Your task to perform on an android device: allow notifications from all sites in the chrome app Image 0: 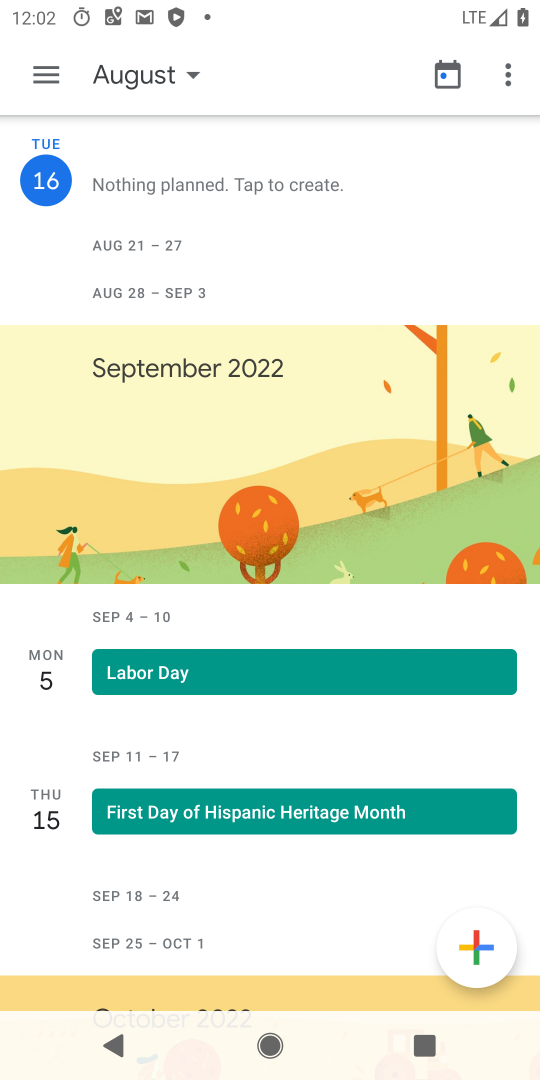
Step 0: press home button
Your task to perform on an android device: allow notifications from all sites in the chrome app Image 1: 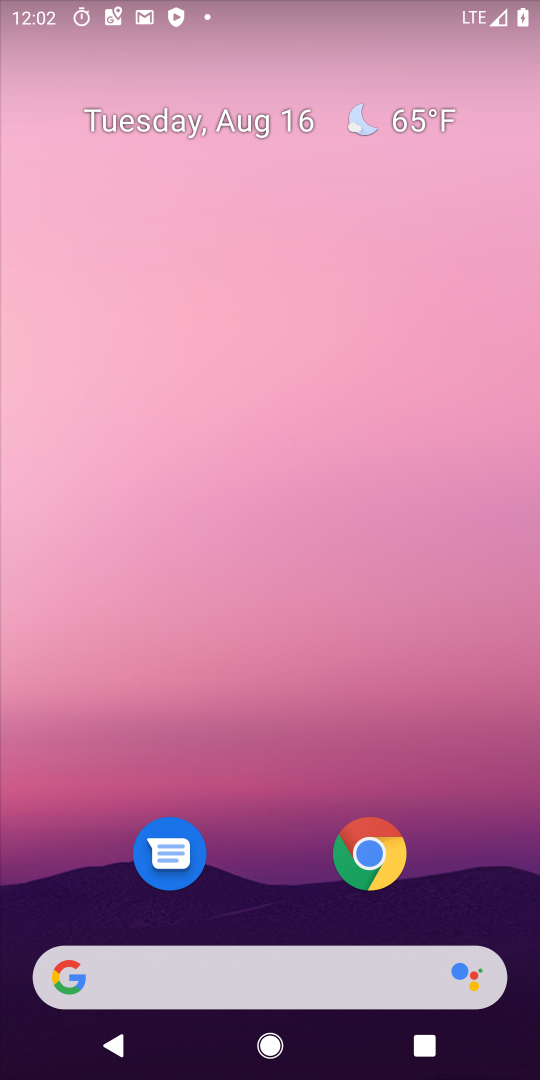
Step 1: click (361, 878)
Your task to perform on an android device: allow notifications from all sites in the chrome app Image 2: 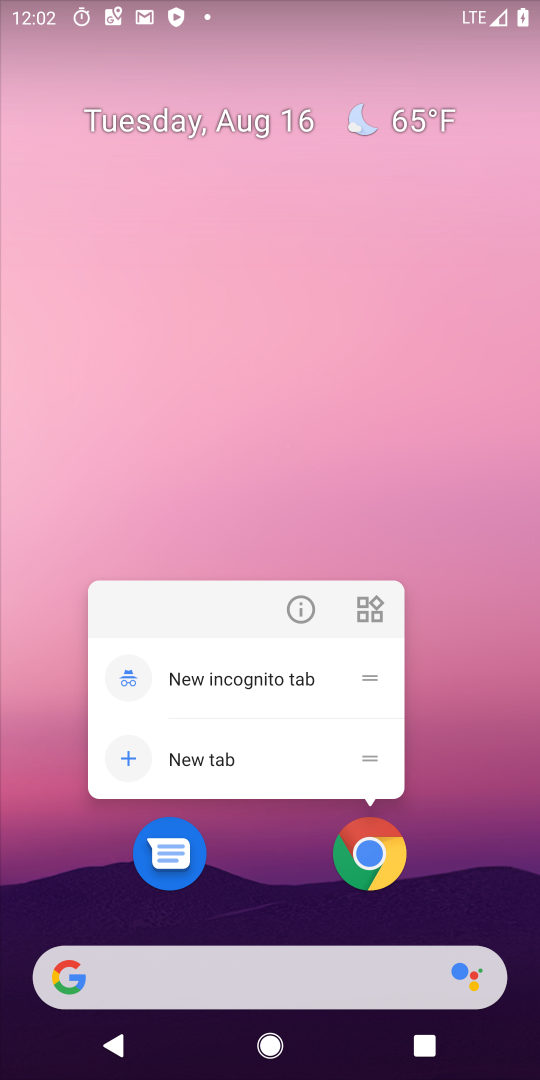
Step 2: click (362, 872)
Your task to perform on an android device: allow notifications from all sites in the chrome app Image 3: 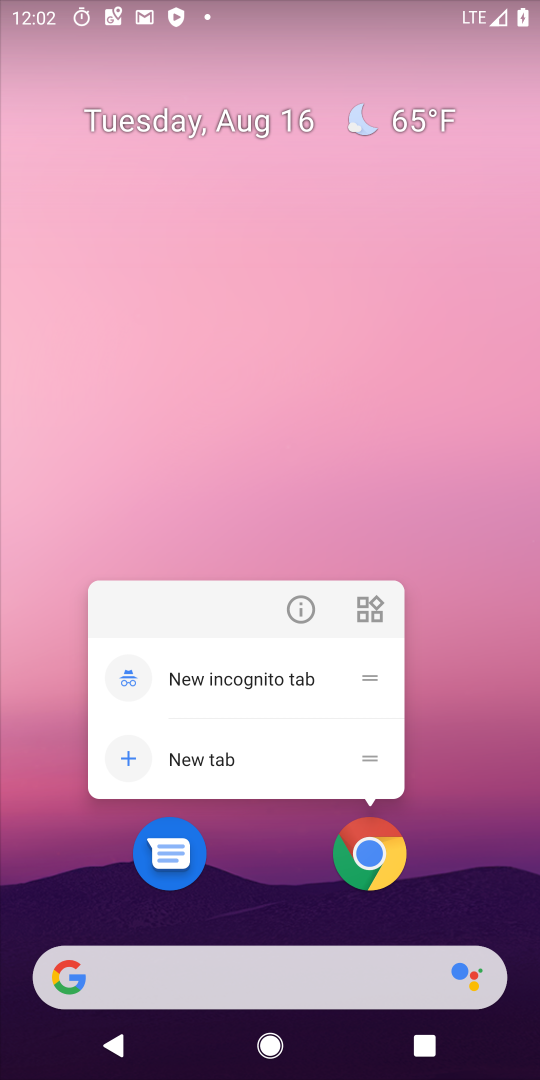
Step 3: click (362, 872)
Your task to perform on an android device: allow notifications from all sites in the chrome app Image 4: 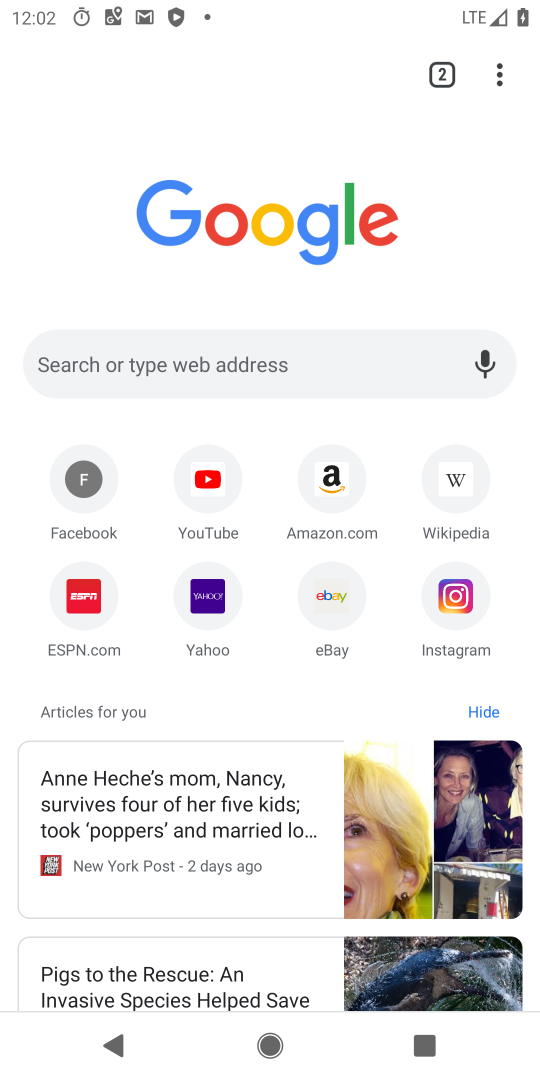
Step 4: click (494, 85)
Your task to perform on an android device: allow notifications from all sites in the chrome app Image 5: 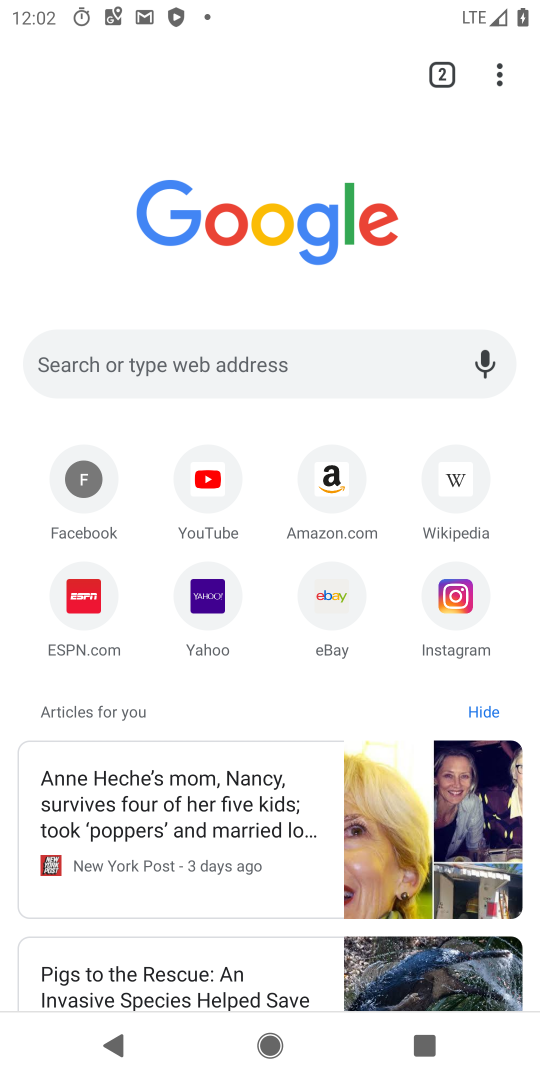
Step 5: click (491, 76)
Your task to perform on an android device: allow notifications from all sites in the chrome app Image 6: 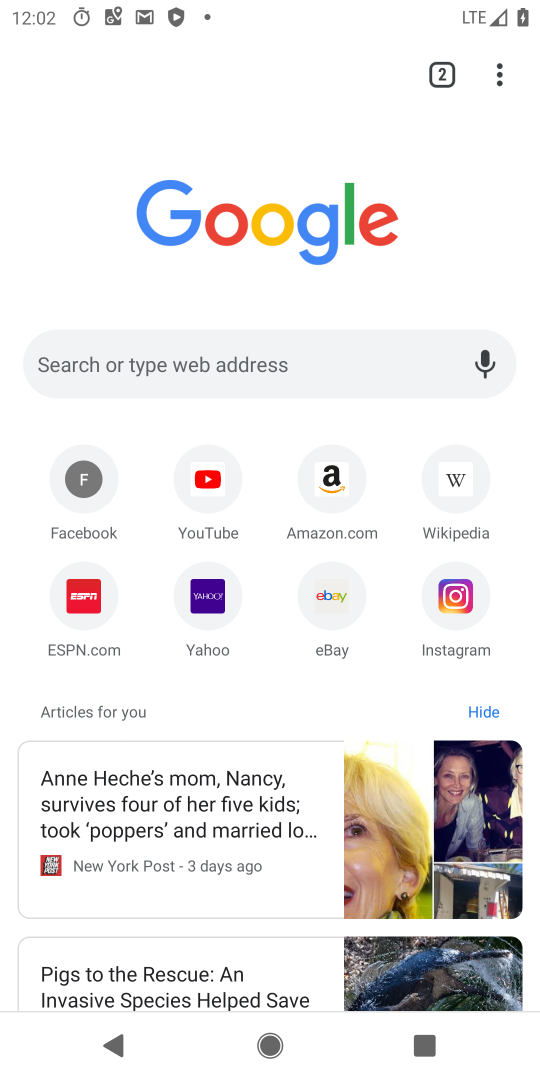
Step 6: click (497, 74)
Your task to perform on an android device: allow notifications from all sites in the chrome app Image 7: 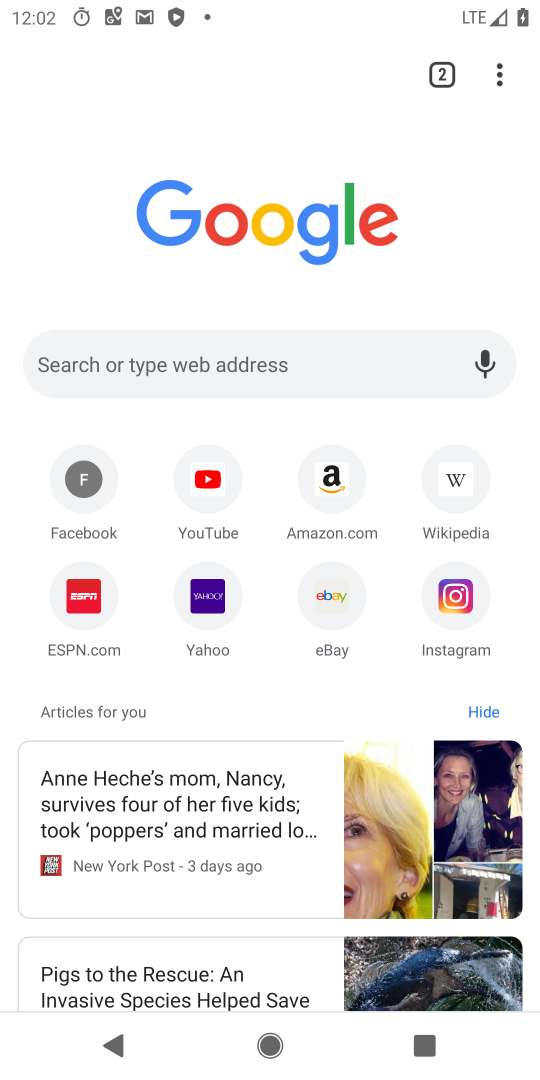
Step 7: click (499, 74)
Your task to perform on an android device: allow notifications from all sites in the chrome app Image 8: 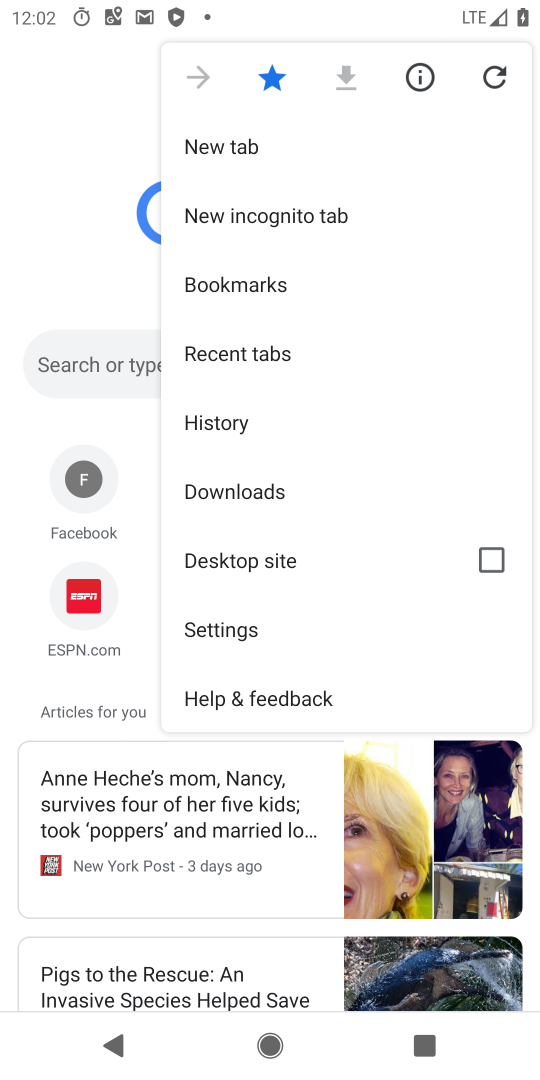
Step 8: click (216, 638)
Your task to perform on an android device: allow notifications from all sites in the chrome app Image 9: 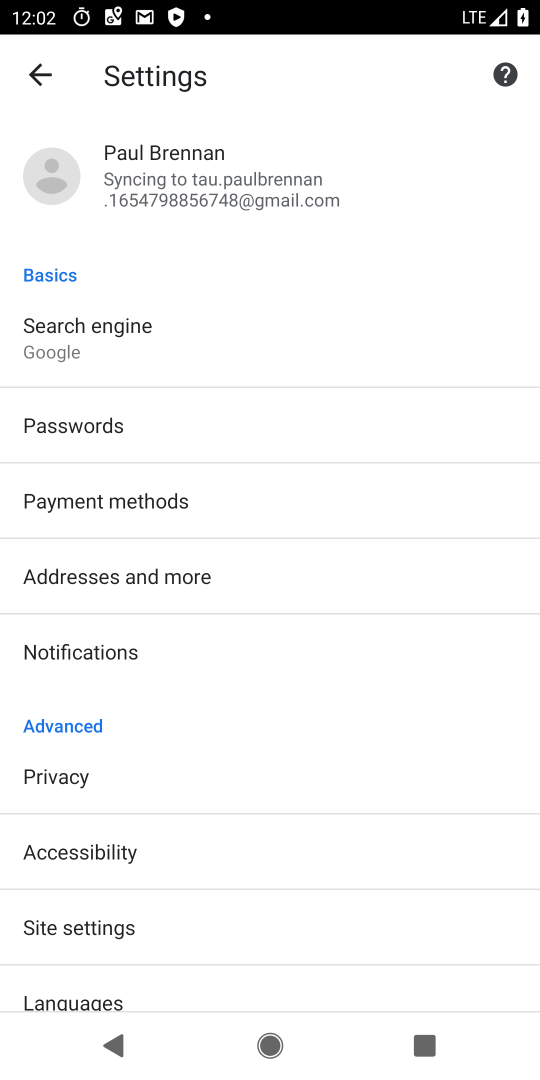
Step 9: click (97, 937)
Your task to perform on an android device: allow notifications from all sites in the chrome app Image 10: 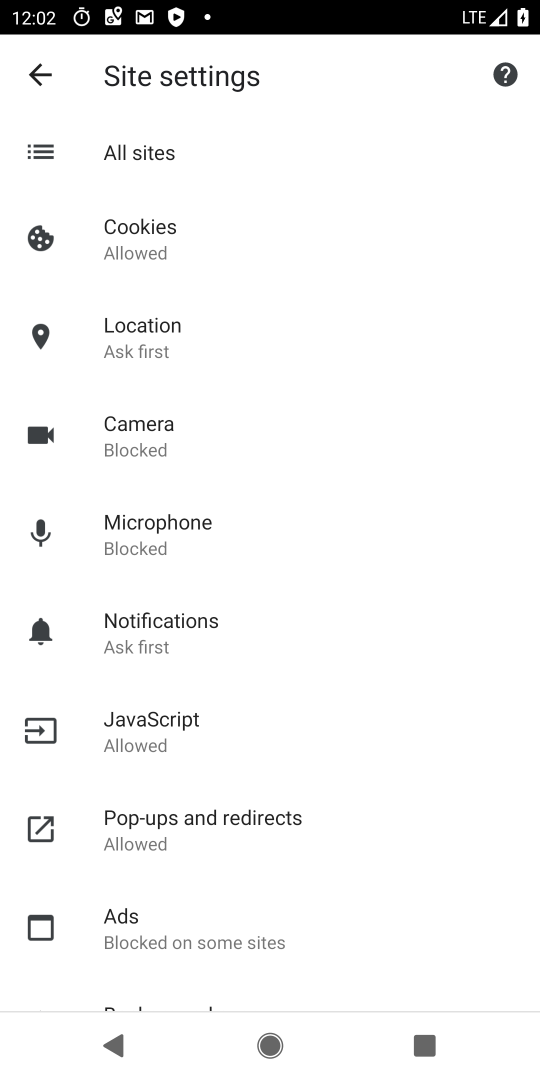
Step 10: drag from (117, 899) to (117, 269)
Your task to perform on an android device: allow notifications from all sites in the chrome app Image 11: 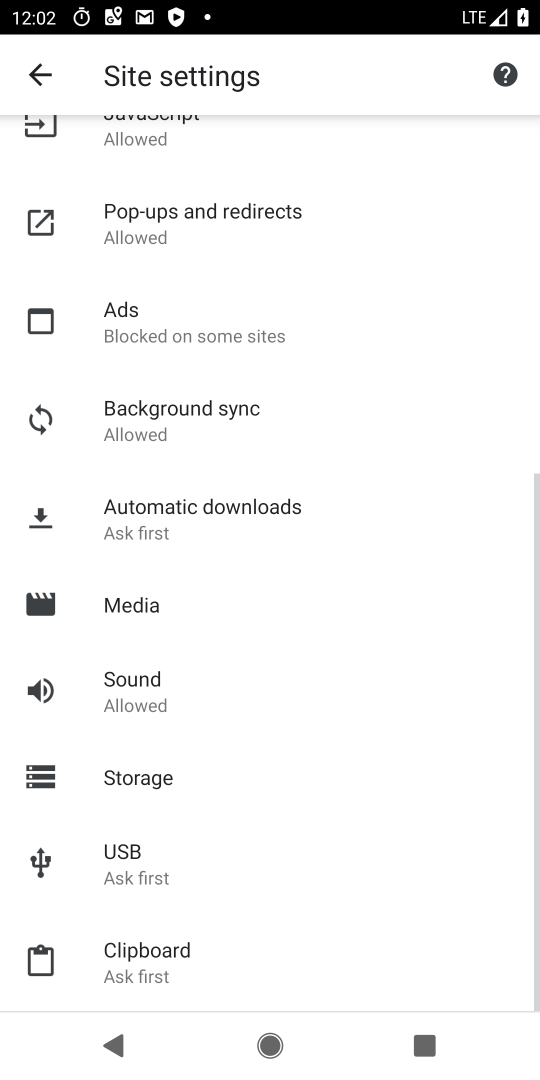
Step 11: drag from (114, 945) to (133, 379)
Your task to perform on an android device: allow notifications from all sites in the chrome app Image 12: 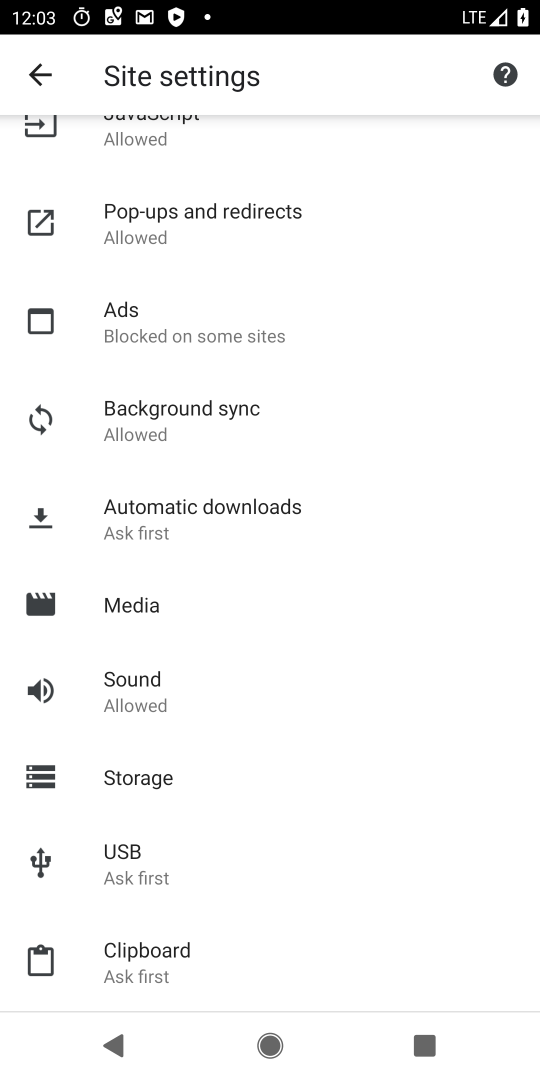
Step 12: drag from (200, 224) to (192, 696)
Your task to perform on an android device: allow notifications from all sites in the chrome app Image 13: 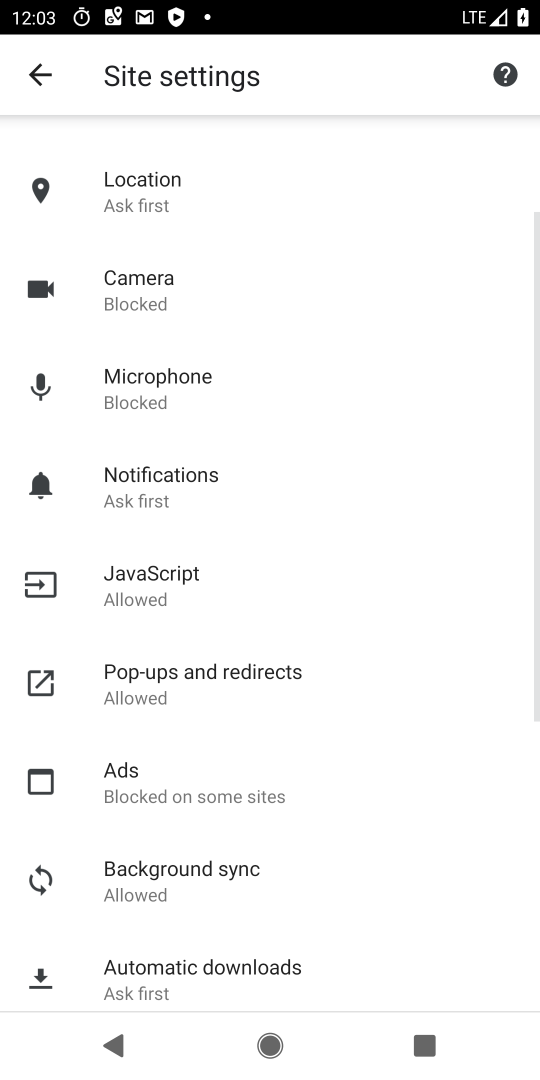
Step 13: drag from (176, 234) to (179, 552)
Your task to perform on an android device: allow notifications from all sites in the chrome app Image 14: 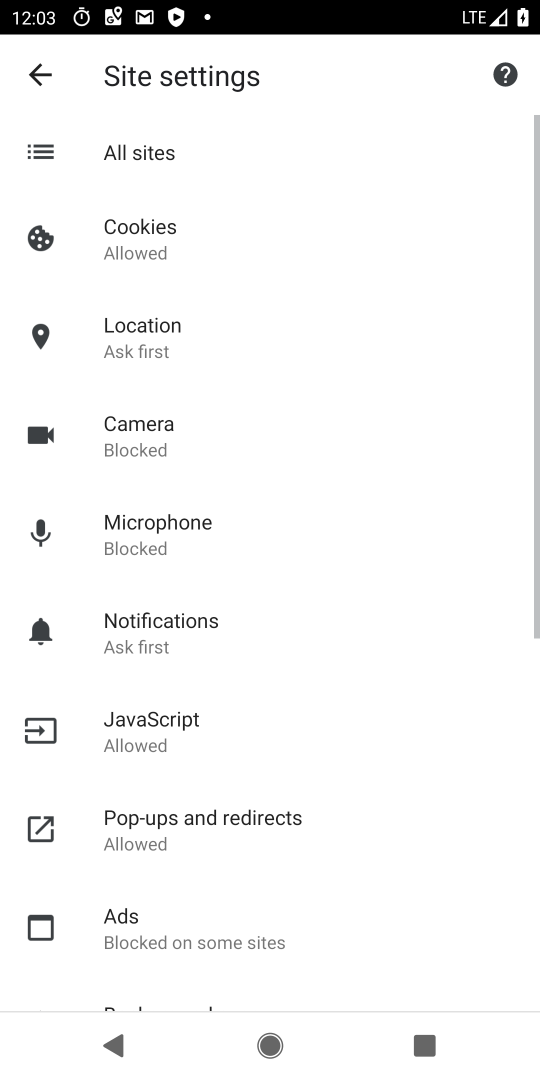
Step 14: drag from (158, 155) to (172, 643)
Your task to perform on an android device: allow notifications from all sites in the chrome app Image 15: 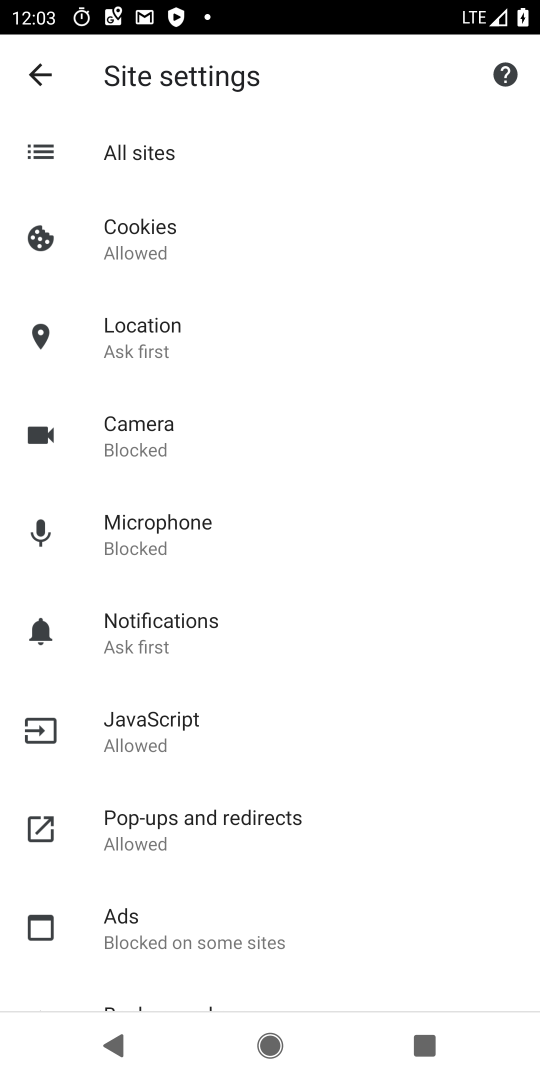
Step 15: click (163, 642)
Your task to perform on an android device: allow notifications from all sites in the chrome app Image 16: 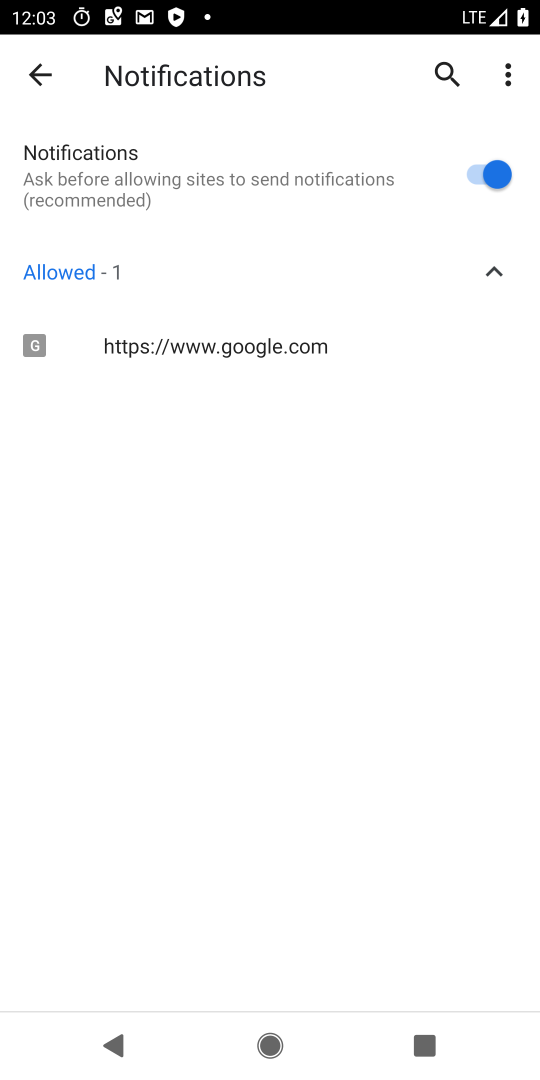
Step 16: task complete